Your task to perform on an android device: turn off picture-in-picture Image 0: 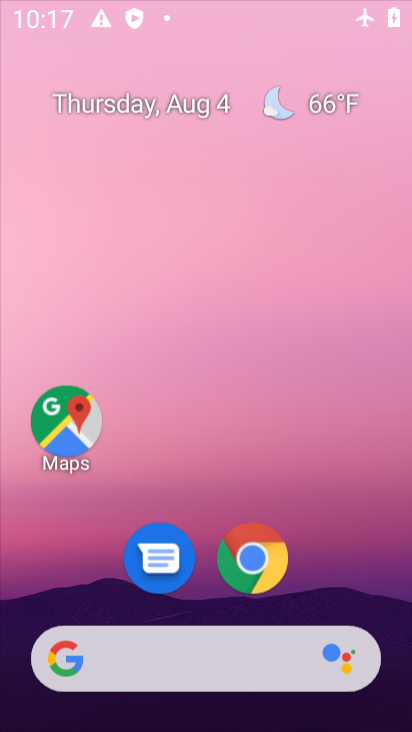
Step 0: drag from (359, 512) to (295, 32)
Your task to perform on an android device: turn off picture-in-picture Image 1: 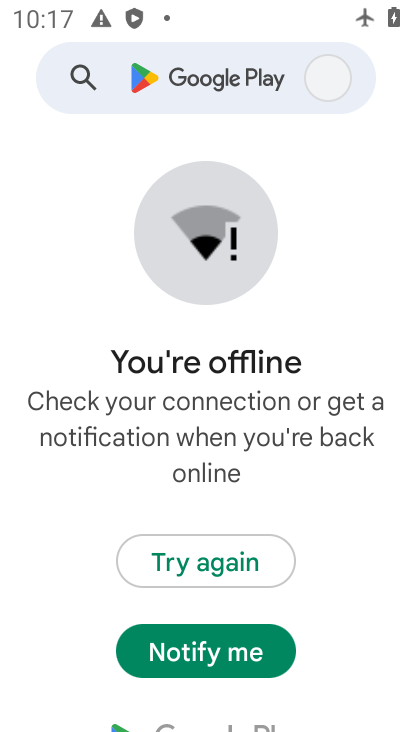
Step 1: press home button
Your task to perform on an android device: turn off picture-in-picture Image 2: 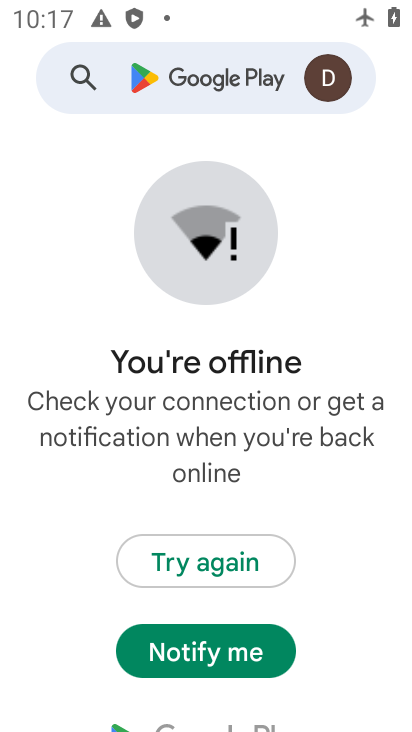
Step 2: press home button
Your task to perform on an android device: turn off picture-in-picture Image 3: 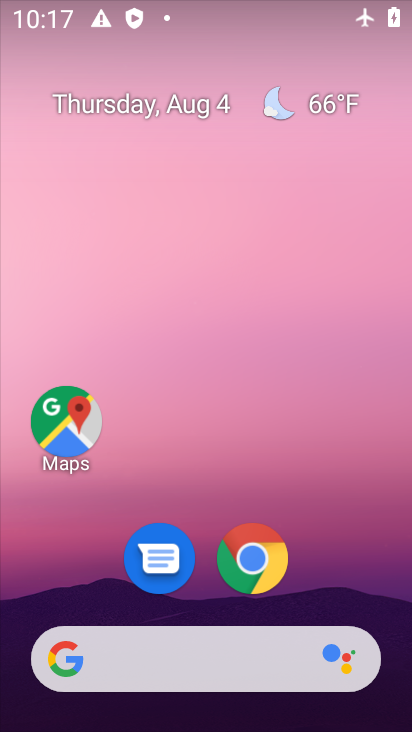
Step 3: click (356, 572)
Your task to perform on an android device: turn off picture-in-picture Image 4: 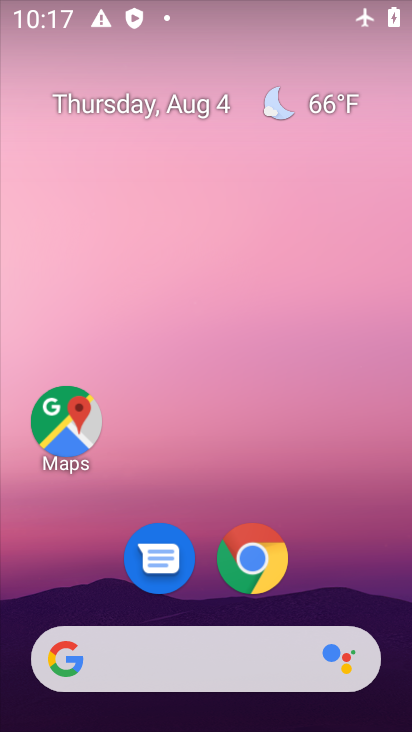
Step 4: click (264, 553)
Your task to perform on an android device: turn off picture-in-picture Image 5: 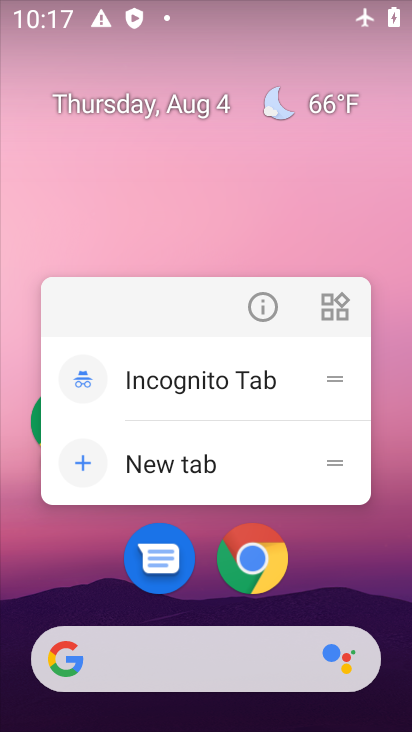
Step 5: click (273, 315)
Your task to perform on an android device: turn off picture-in-picture Image 6: 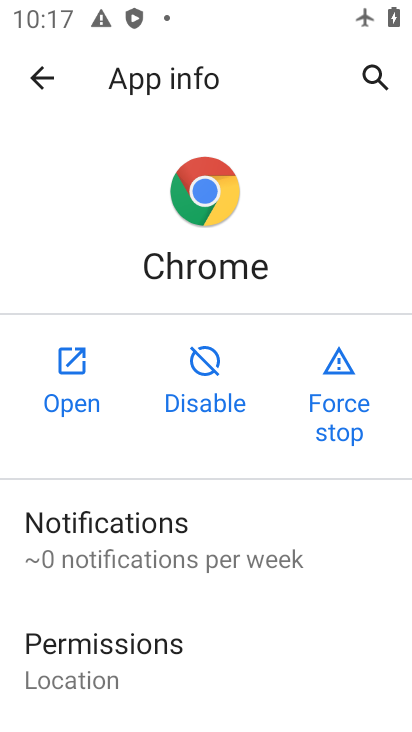
Step 6: drag from (246, 594) to (284, 189)
Your task to perform on an android device: turn off picture-in-picture Image 7: 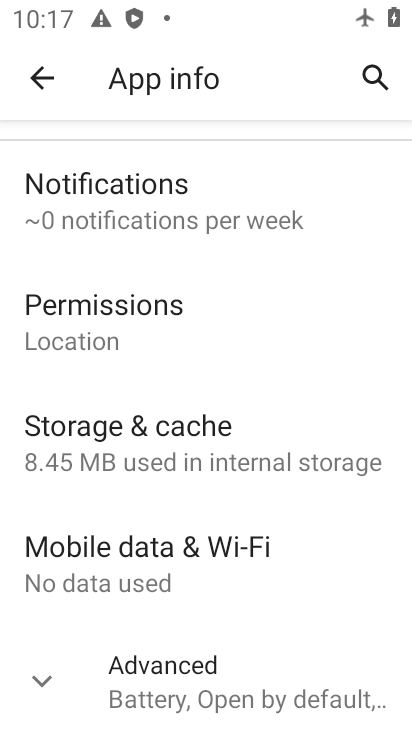
Step 7: click (183, 679)
Your task to perform on an android device: turn off picture-in-picture Image 8: 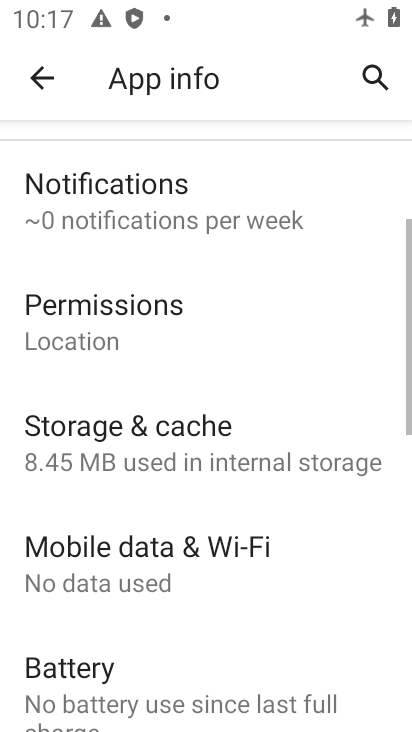
Step 8: click (380, 112)
Your task to perform on an android device: turn off picture-in-picture Image 9: 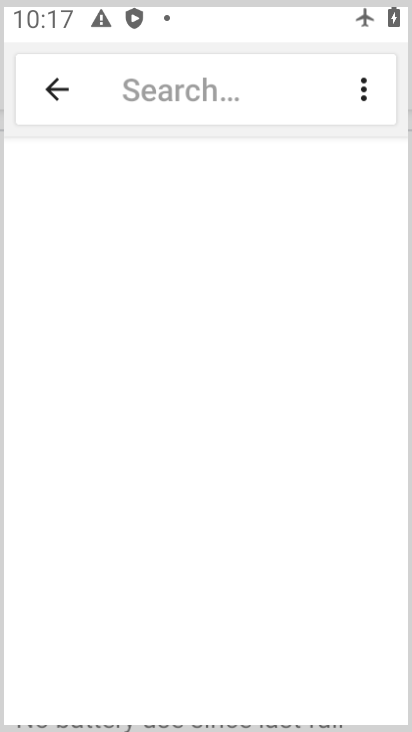
Step 9: drag from (345, 611) to (383, 233)
Your task to perform on an android device: turn off picture-in-picture Image 10: 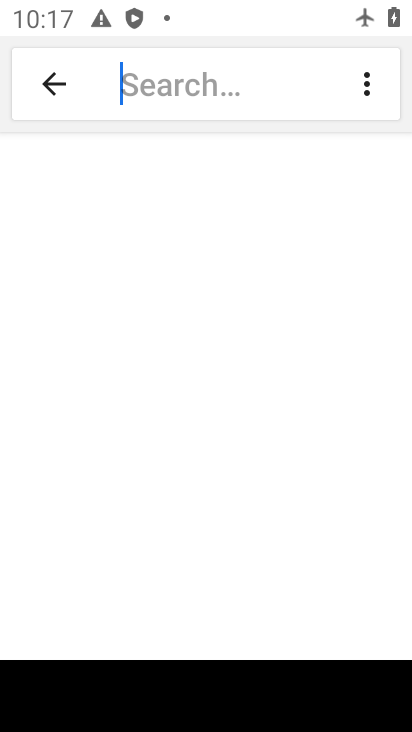
Step 10: click (56, 83)
Your task to perform on an android device: turn off picture-in-picture Image 11: 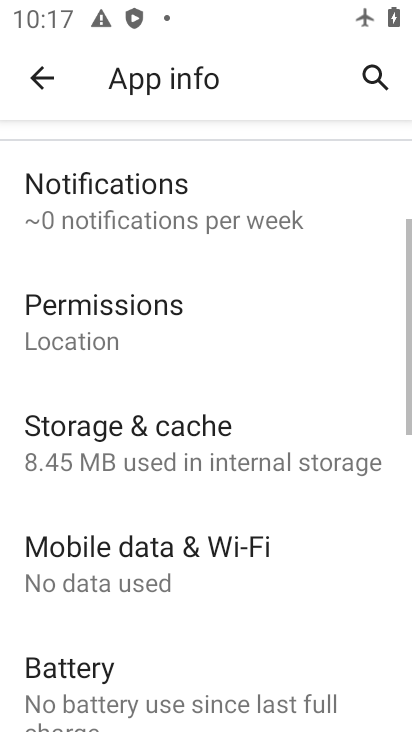
Step 11: drag from (321, 584) to (332, 158)
Your task to perform on an android device: turn off picture-in-picture Image 12: 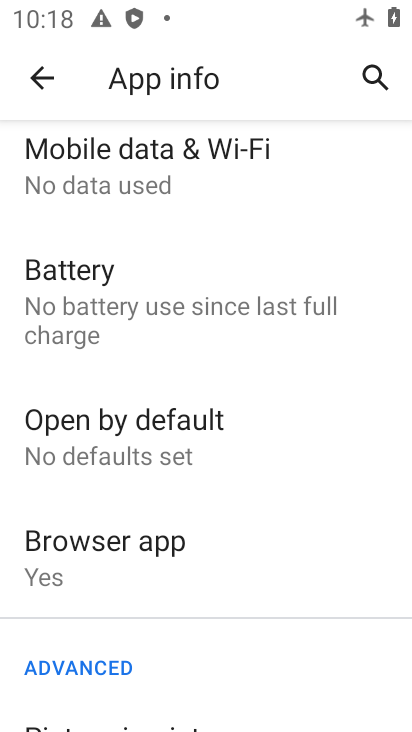
Step 12: drag from (334, 540) to (390, 240)
Your task to perform on an android device: turn off picture-in-picture Image 13: 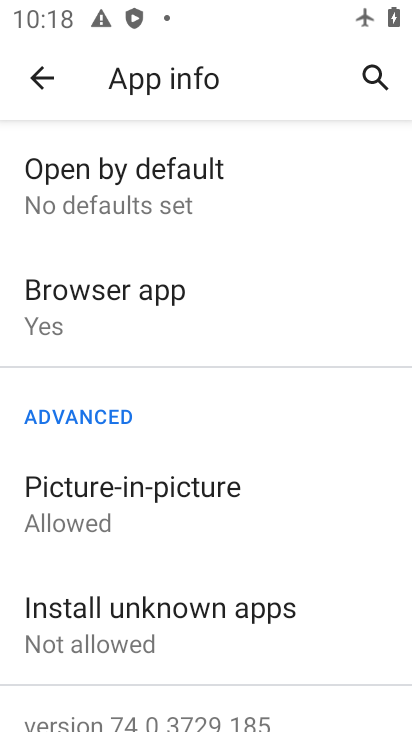
Step 13: click (159, 521)
Your task to perform on an android device: turn off picture-in-picture Image 14: 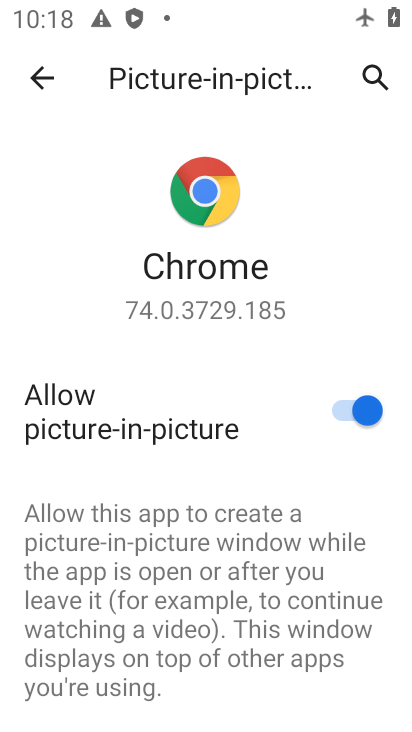
Step 14: click (375, 389)
Your task to perform on an android device: turn off picture-in-picture Image 15: 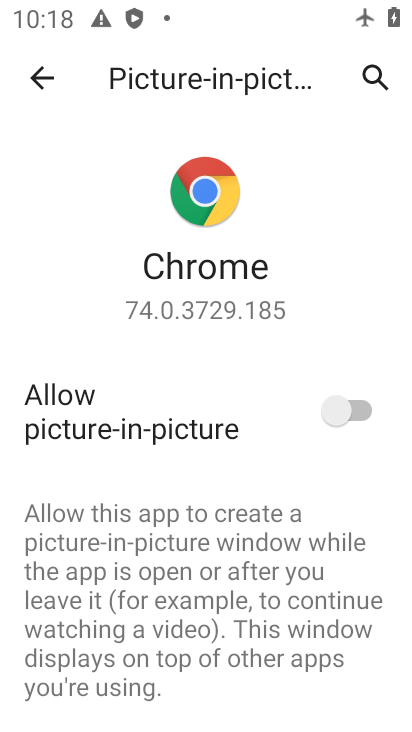
Step 15: task complete